Your task to perform on an android device: Open Google Chrome and click the shortcut for Amazon.com Image 0: 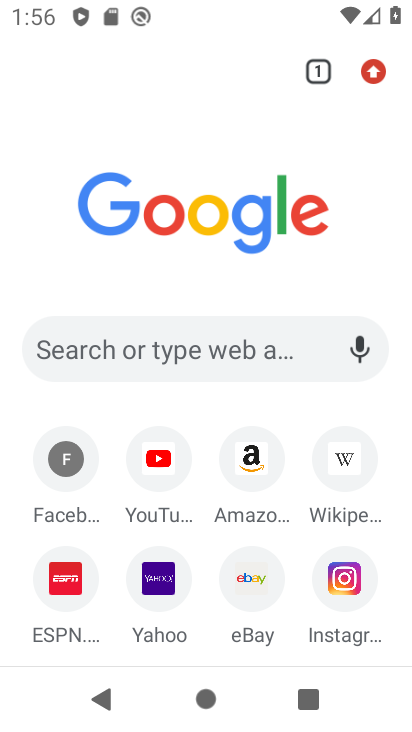
Step 0: click (251, 459)
Your task to perform on an android device: Open Google Chrome and click the shortcut for Amazon.com Image 1: 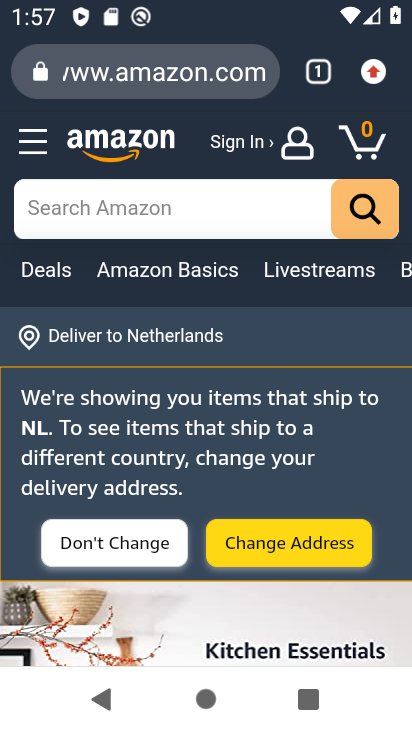
Step 1: task complete